Your task to perform on an android device: toggle location history Image 0: 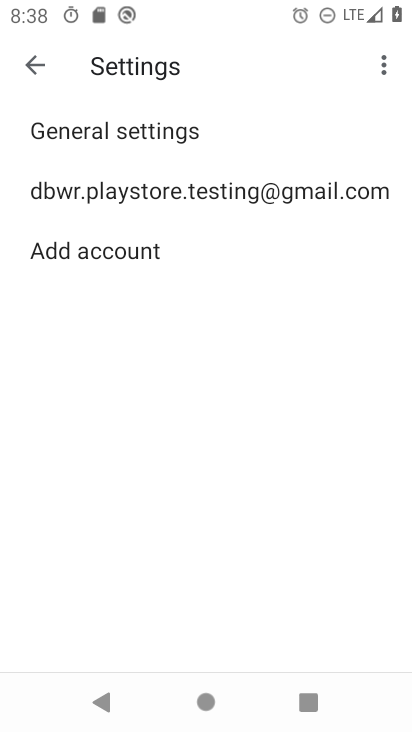
Step 0: press home button
Your task to perform on an android device: toggle location history Image 1: 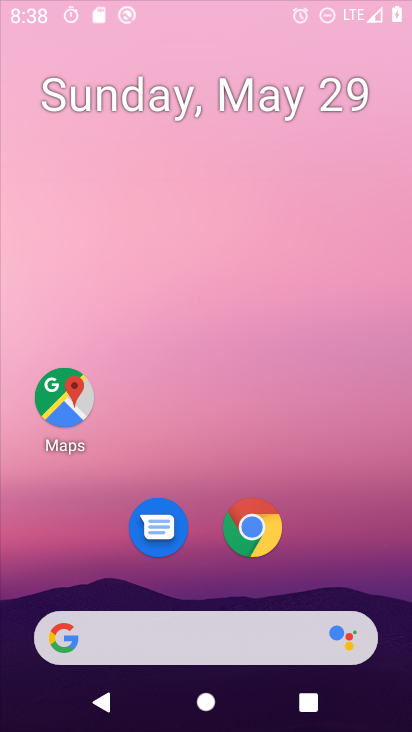
Step 1: drag from (356, 603) to (272, 51)
Your task to perform on an android device: toggle location history Image 2: 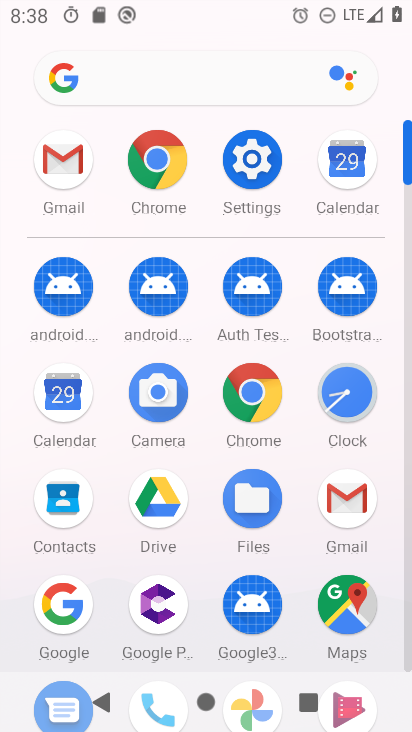
Step 2: click (249, 165)
Your task to perform on an android device: toggle location history Image 3: 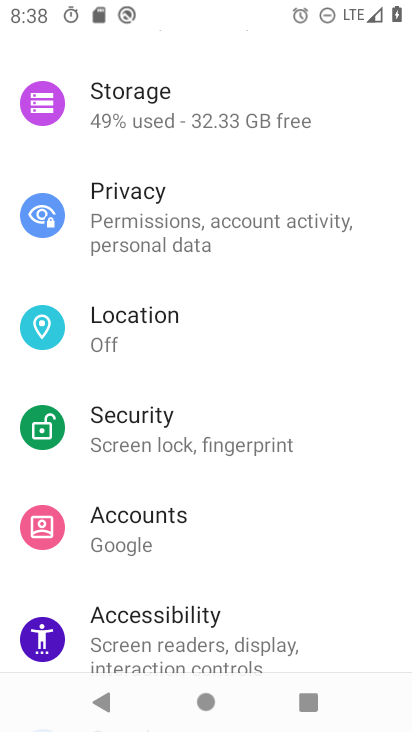
Step 3: click (194, 325)
Your task to perform on an android device: toggle location history Image 4: 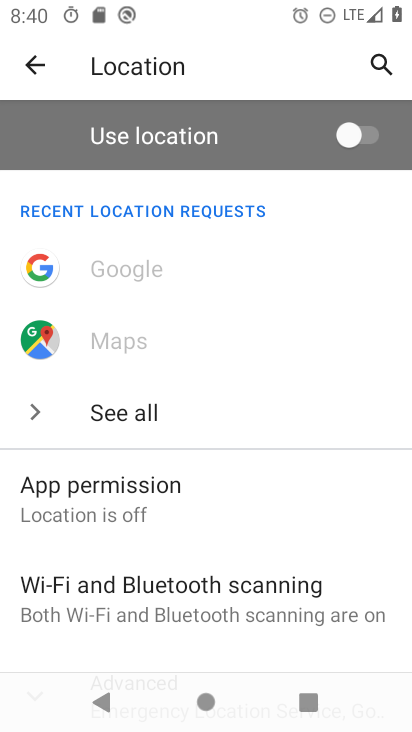
Step 4: drag from (247, 575) to (236, 126)
Your task to perform on an android device: toggle location history Image 5: 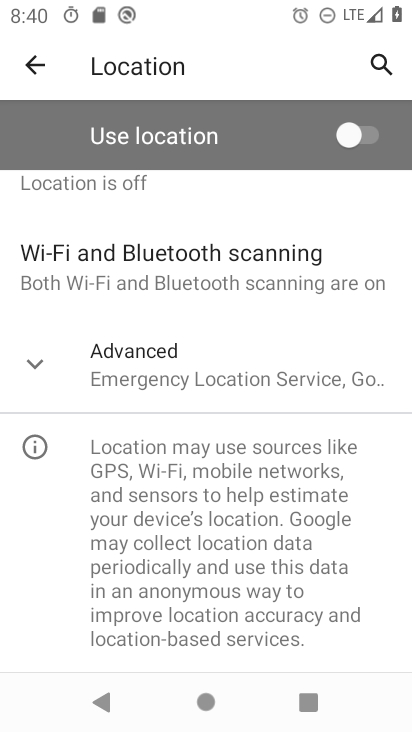
Step 5: click (175, 380)
Your task to perform on an android device: toggle location history Image 6: 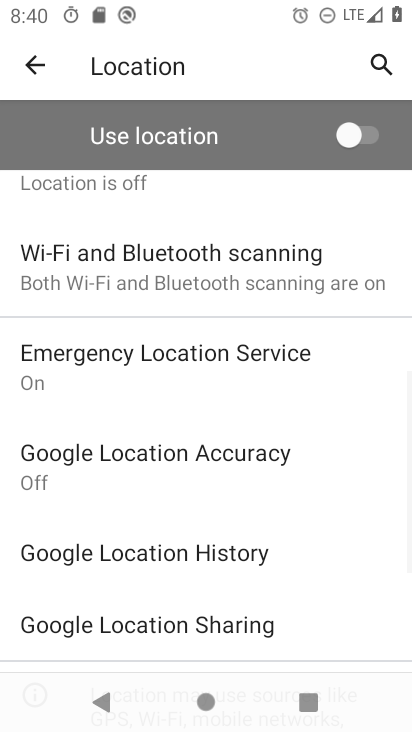
Step 6: click (258, 556)
Your task to perform on an android device: toggle location history Image 7: 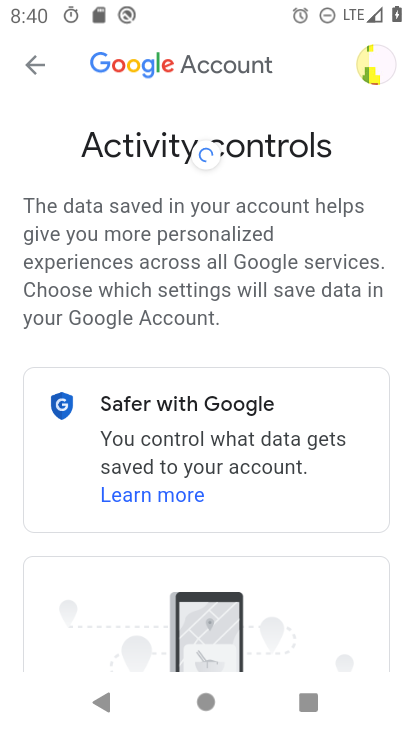
Step 7: drag from (368, 633) to (271, 98)
Your task to perform on an android device: toggle location history Image 8: 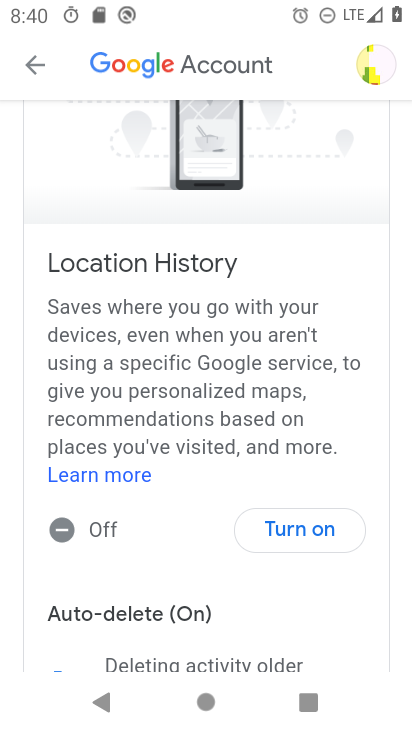
Step 8: click (304, 519)
Your task to perform on an android device: toggle location history Image 9: 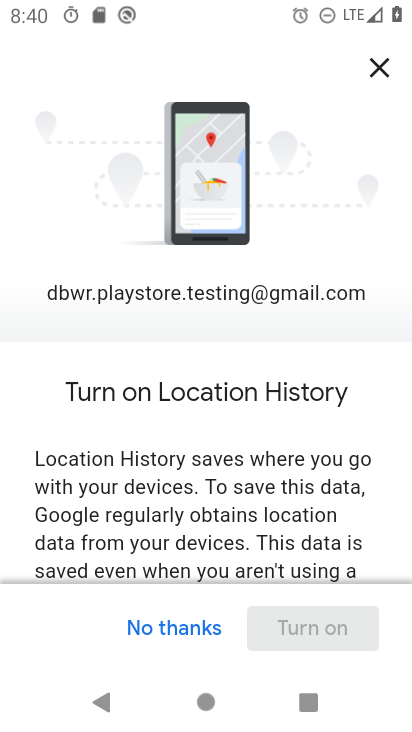
Step 9: task complete